Your task to perform on an android device: open app "Cash App" Image 0: 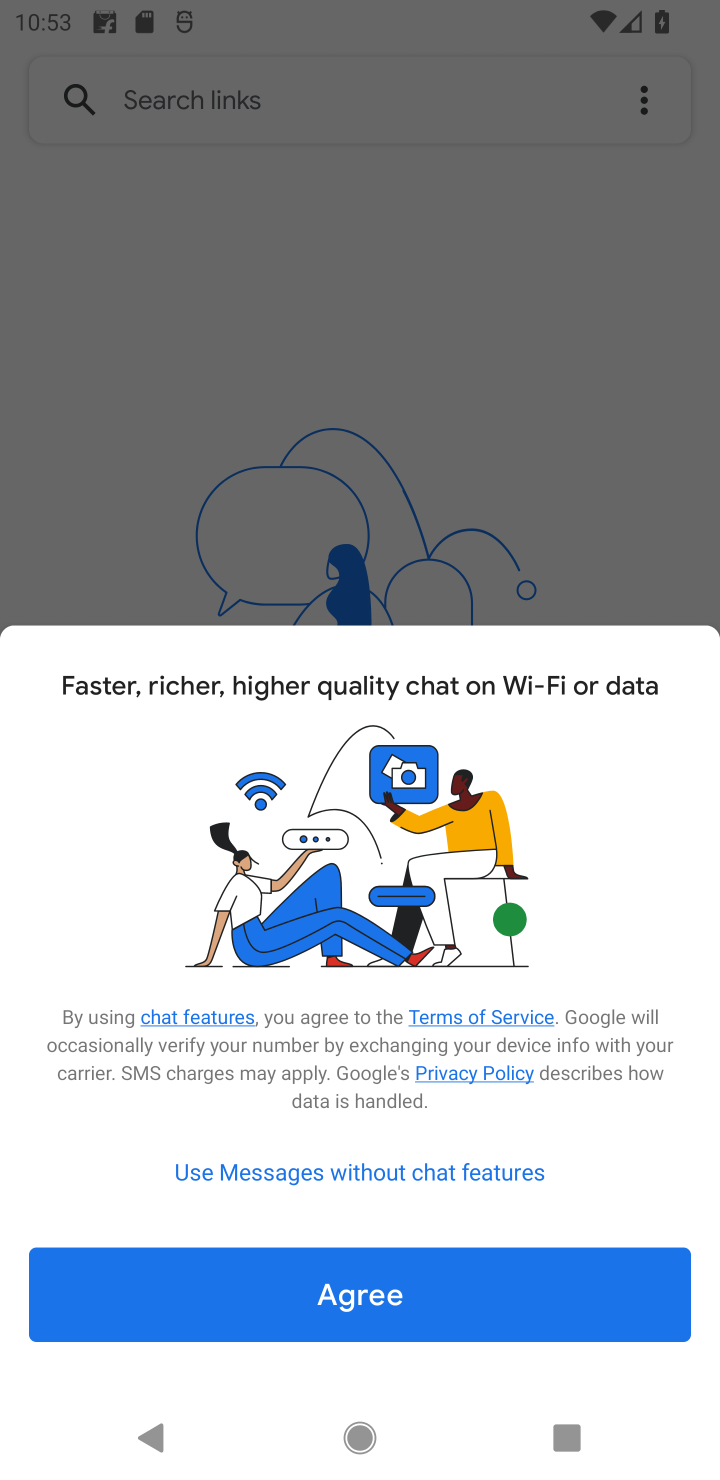
Step 0: press back button
Your task to perform on an android device: open app "Cash App" Image 1: 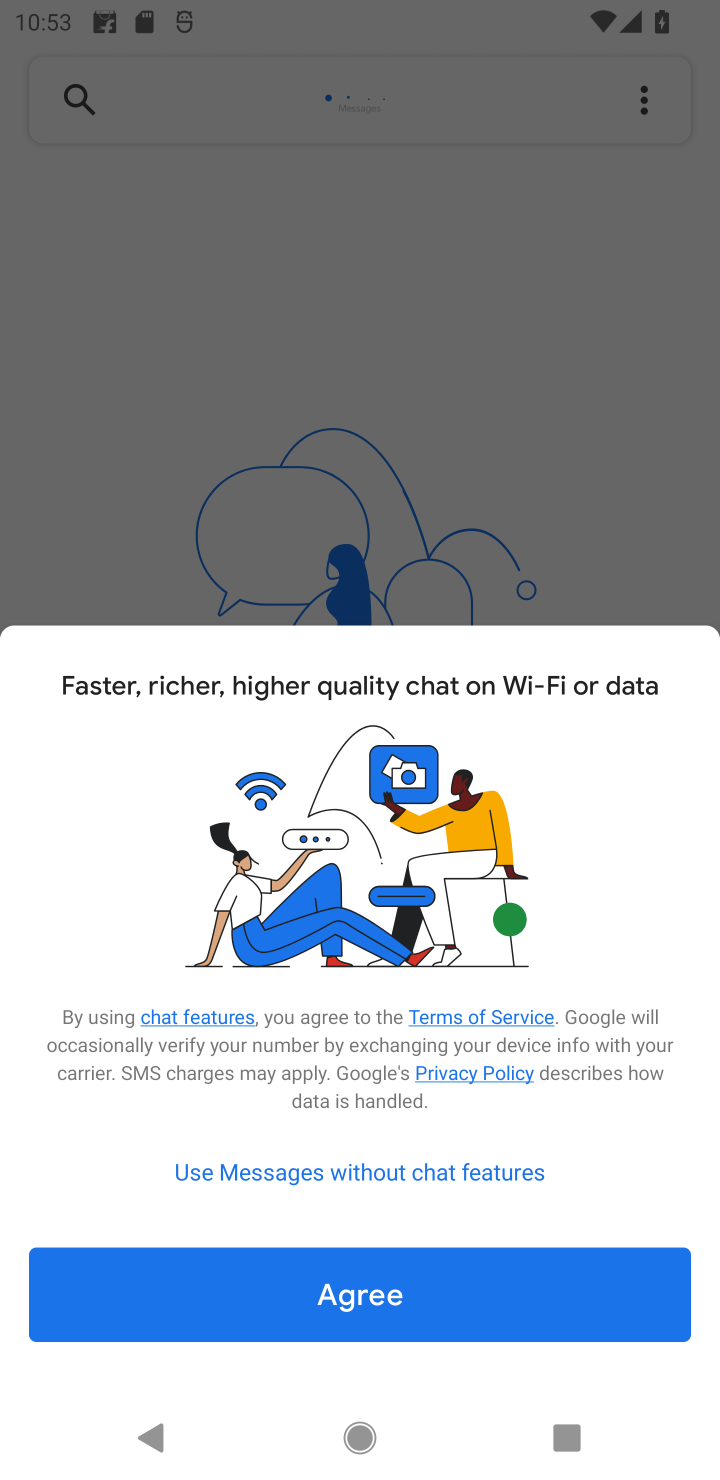
Step 1: press home button
Your task to perform on an android device: open app "Cash App" Image 2: 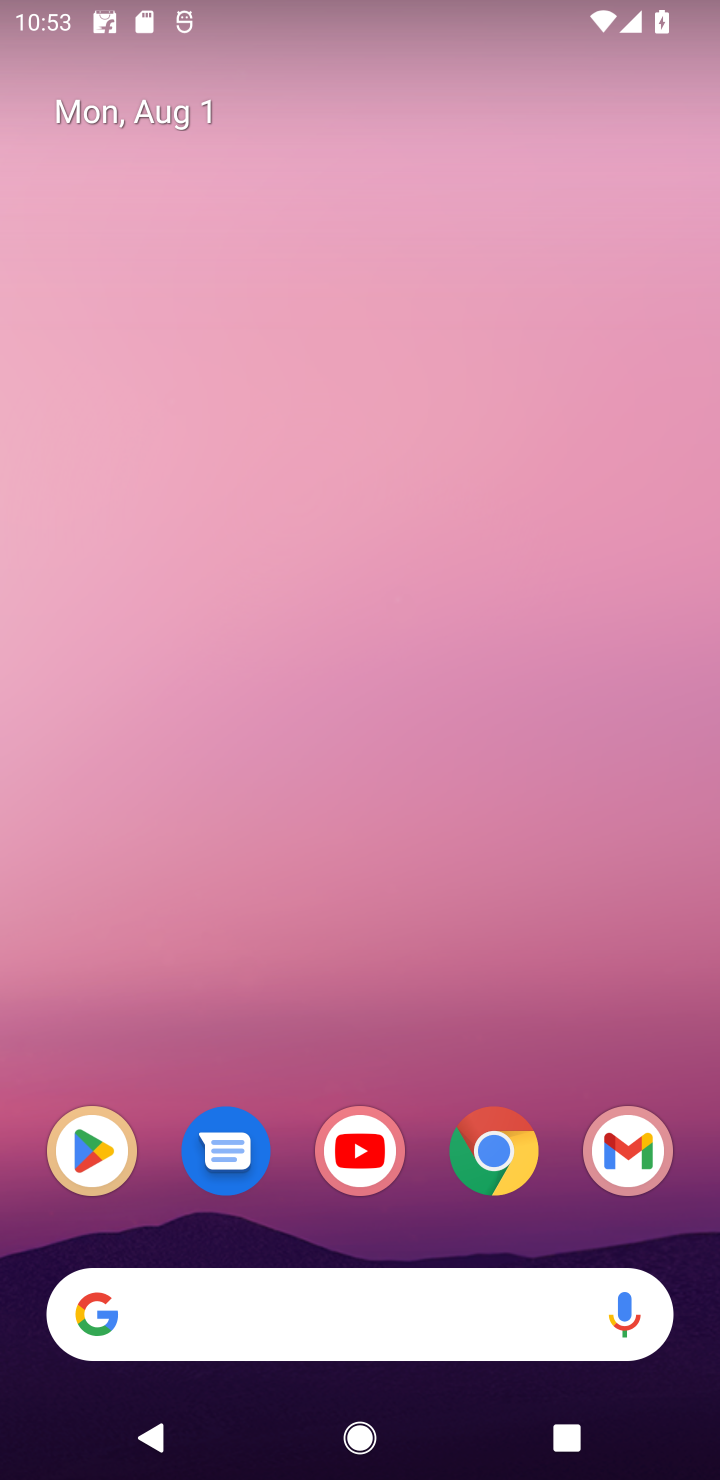
Step 2: click (81, 1129)
Your task to perform on an android device: open app "Cash App" Image 3: 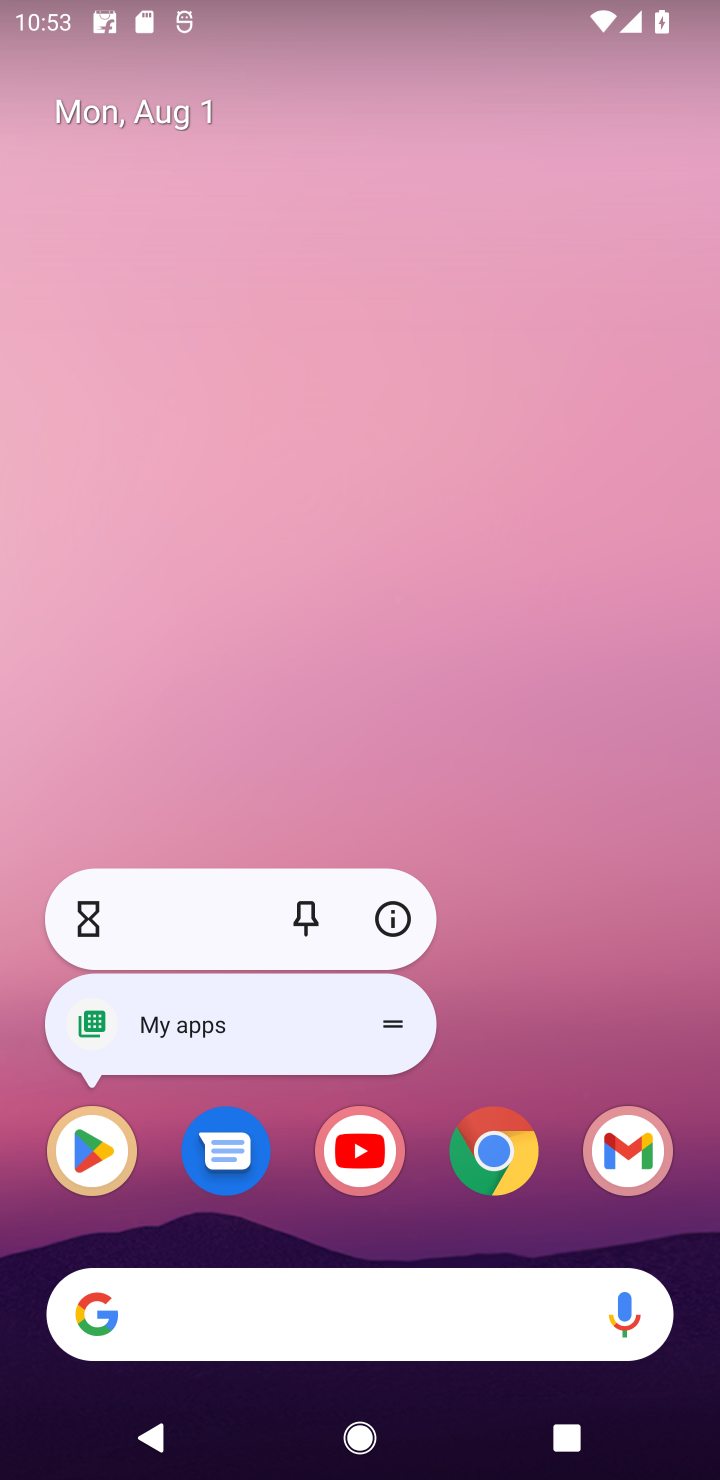
Step 3: click (81, 1129)
Your task to perform on an android device: open app "Cash App" Image 4: 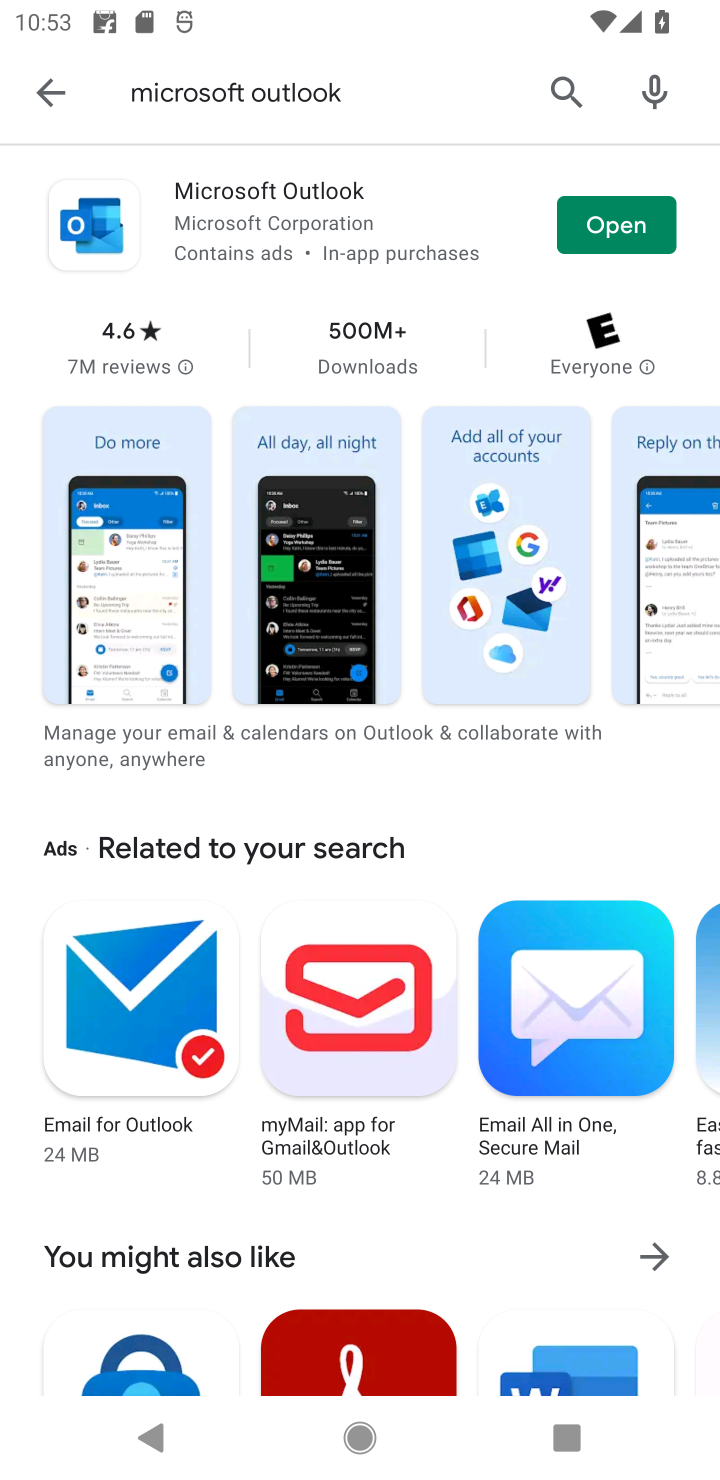
Step 4: click (574, 104)
Your task to perform on an android device: open app "Cash App" Image 5: 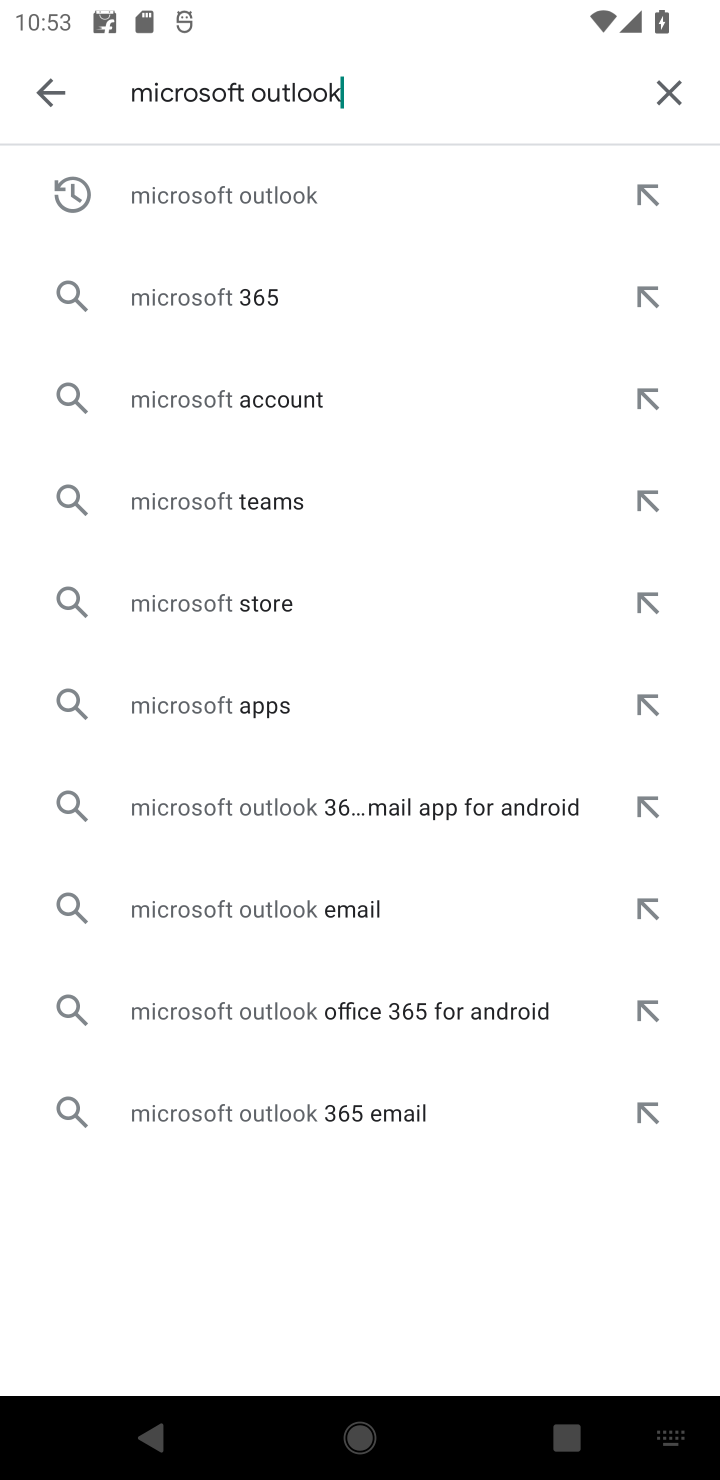
Step 5: click (661, 105)
Your task to perform on an android device: open app "Cash App" Image 6: 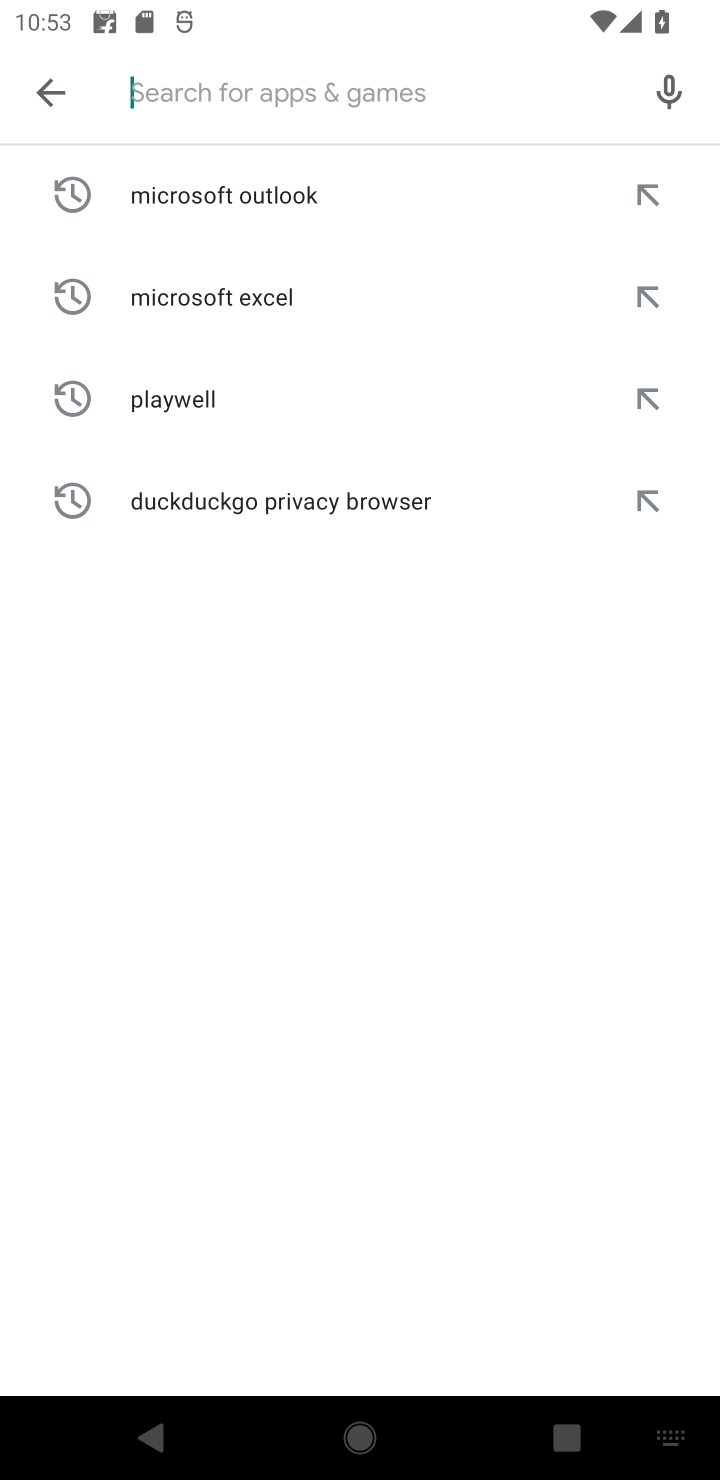
Step 6: type "Cash App"
Your task to perform on an android device: open app "Cash App" Image 7: 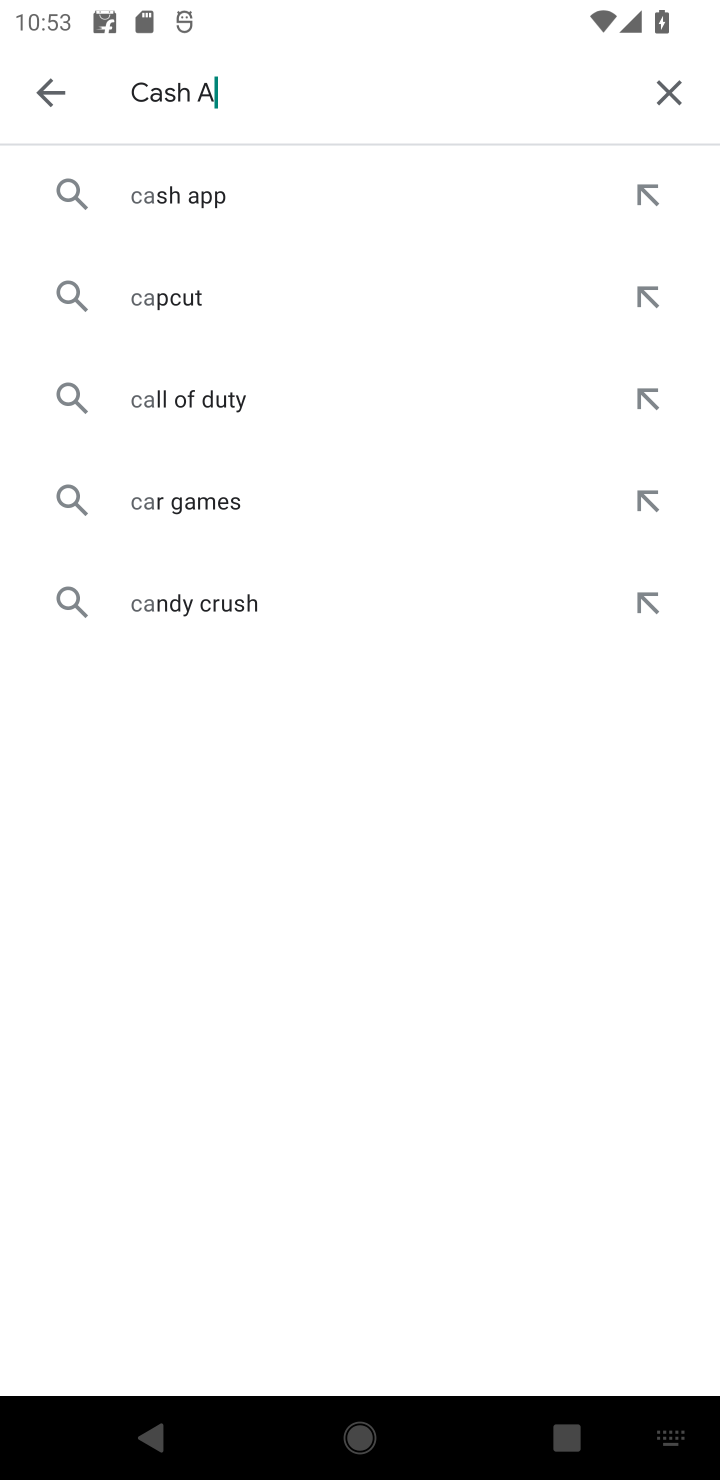
Step 7: type ""
Your task to perform on an android device: open app "Cash App" Image 8: 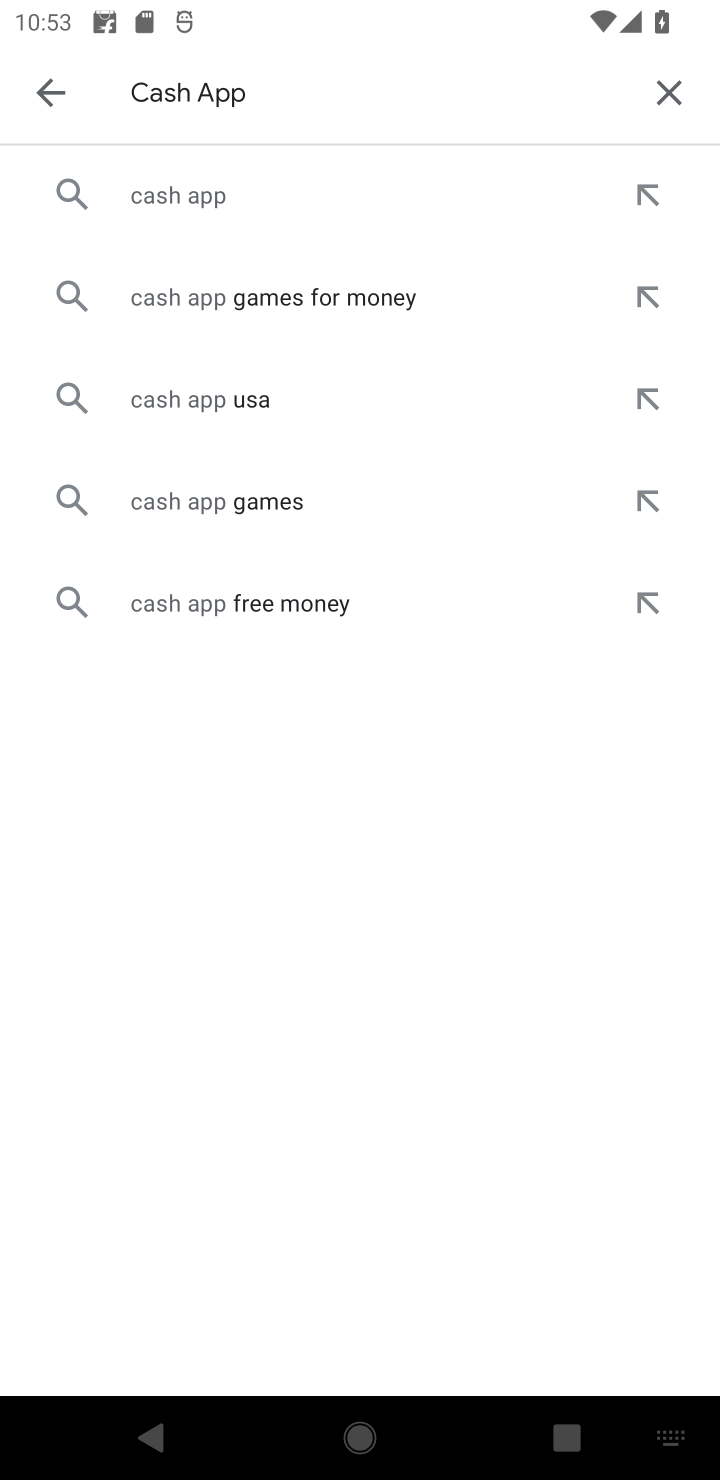
Step 8: click (299, 195)
Your task to perform on an android device: open app "Cash App" Image 9: 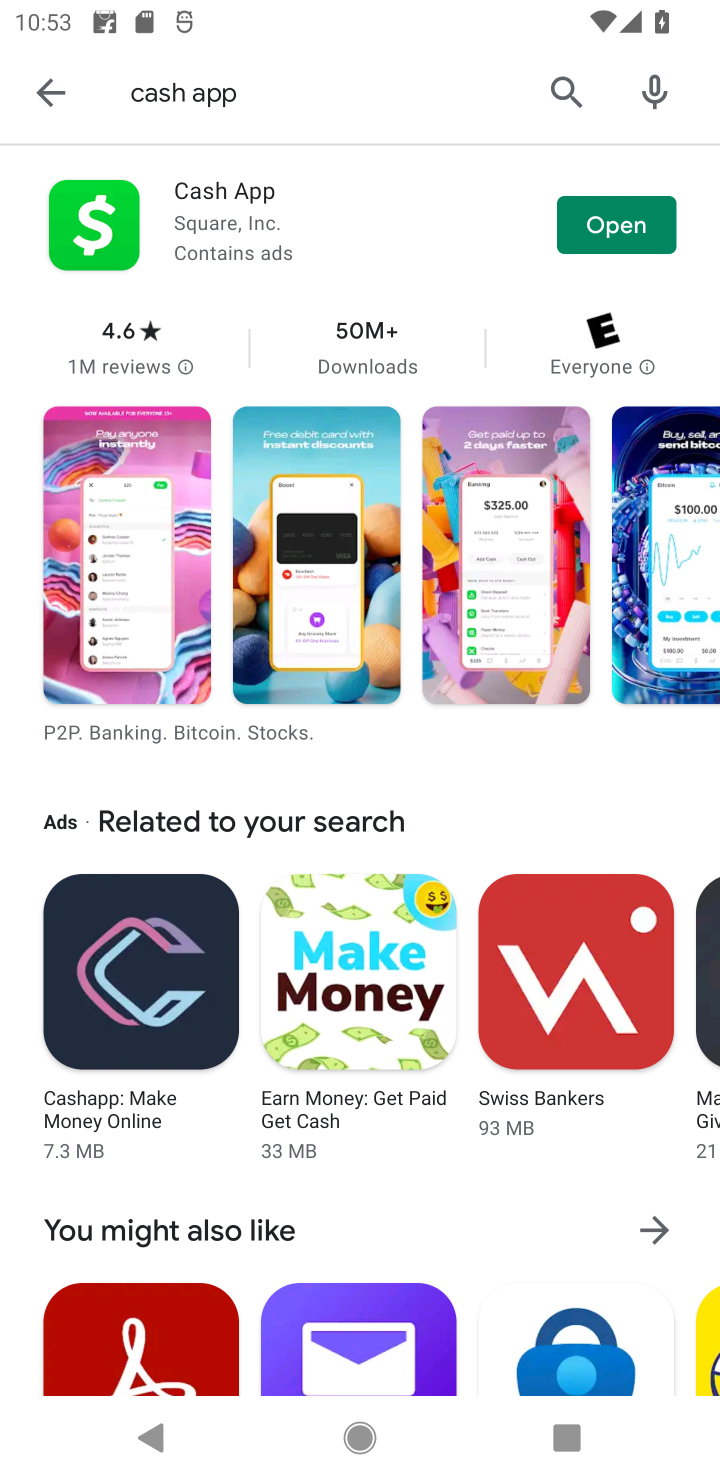
Step 9: click (617, 233)
Your task to perform on an android device: open app "Cash App" Image 10: 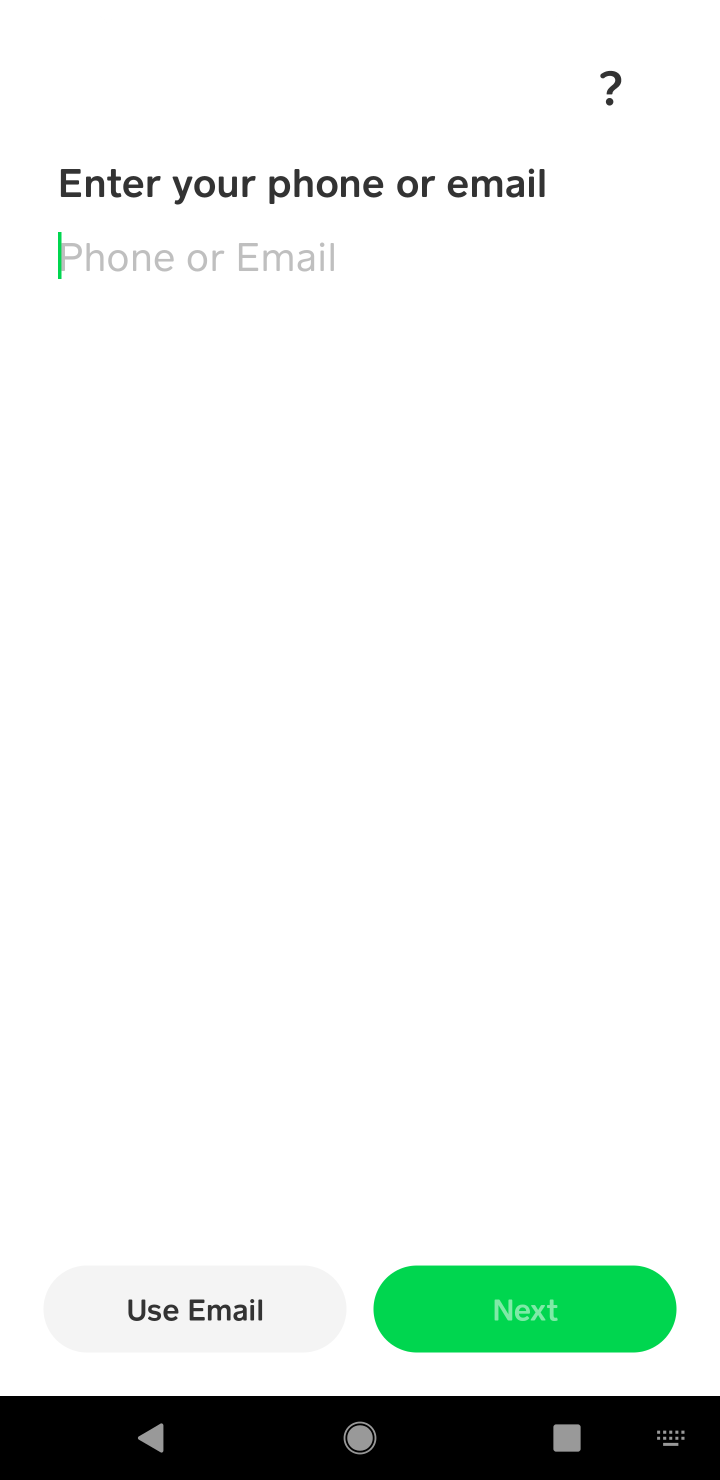
Step 10: task complete